Your task to perform on an android device: find which apps use the phone's location Image 0: 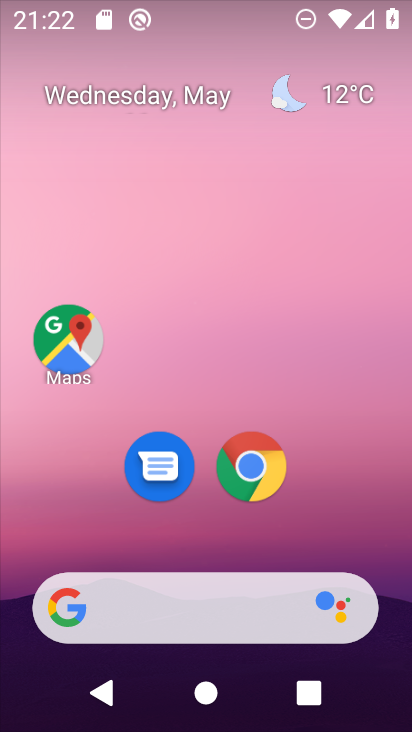
Step 0: press home button
Your task to perform on an android device: find which apps use the phone's location Image 1: 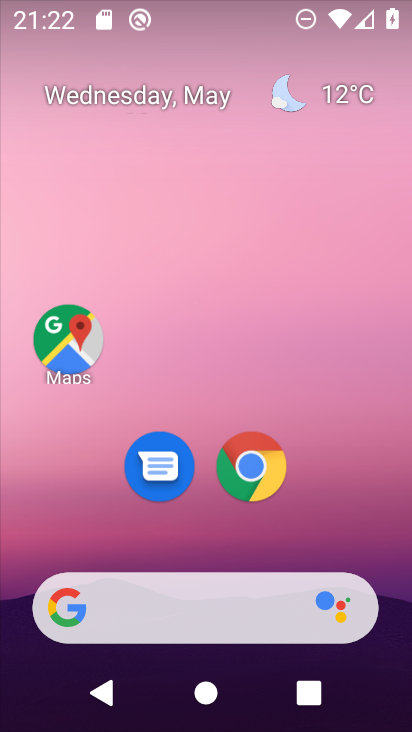
Step 1: drag from (204, 542) to (159, 58)
Your task to perform on an android device: find which apps use the phone's location Image 2: 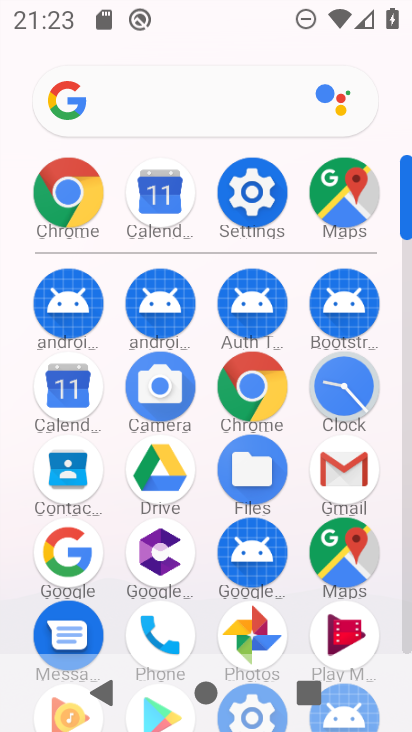
Step 2: click (249, 187)
Your task to perform on an android device: find which apps use the phone's location Image 3: 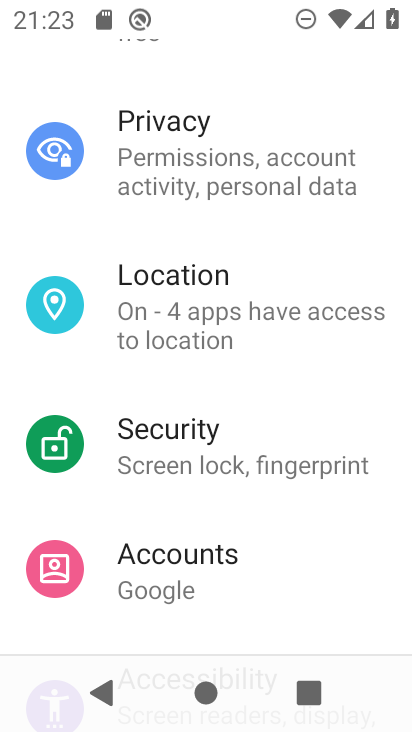
Step 3: click (175, 325)
Your task to perform on an android device: find which apps use the phone's location Image 4: 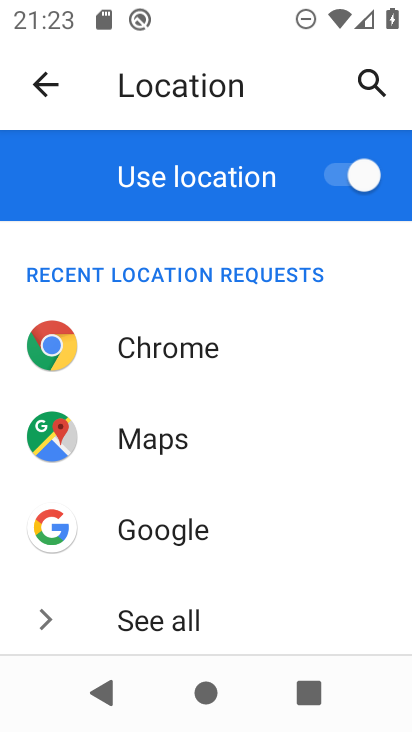
Step 4: drag from (215, 634) to (253, 239)
Your task to perform on an android device: find which apps use the phone's location Image 5: 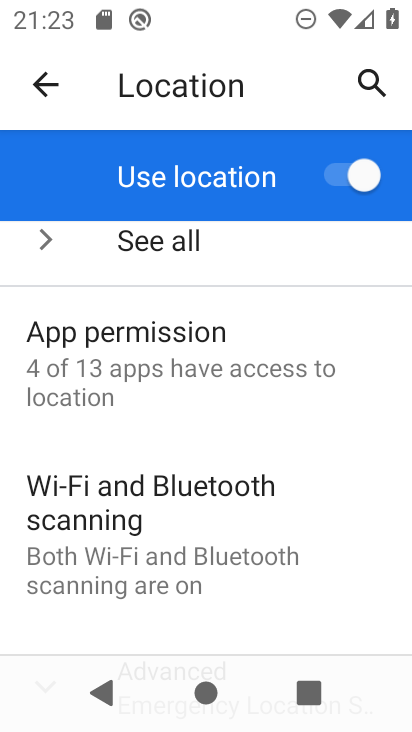
Step 5: click (164, 354)
Your task to perform on an android device: find which apps use the phone's location Image 6: 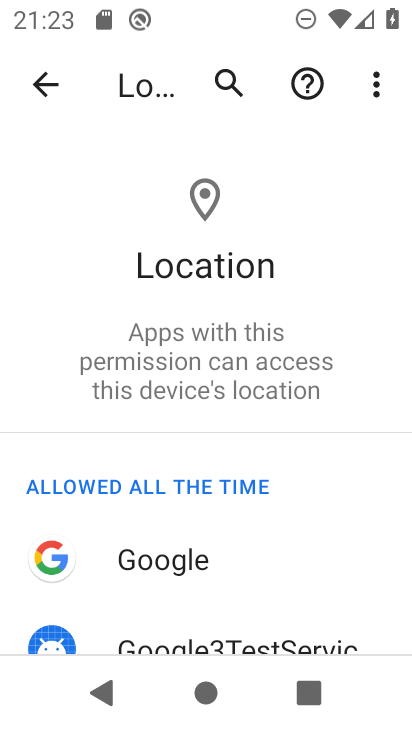
Step 6: task complete